Your task to perform on an android device: Go to privacy settings Image 0: 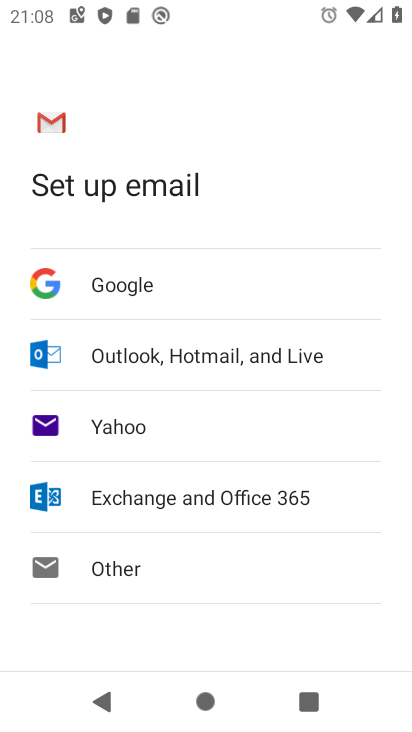
Step 0: press home button
Your task to perform on an android device: Go to privacy settings Image 1: 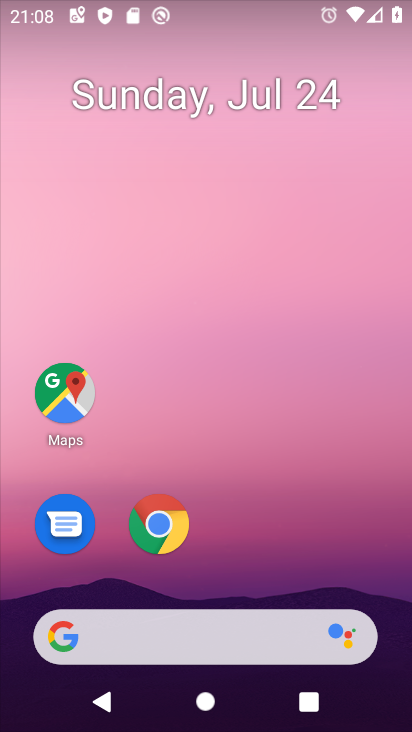
Step 1: drag from (256, 546) to (276, 27)
Your task to perform on an android device: Go to privacy settings Image 2: 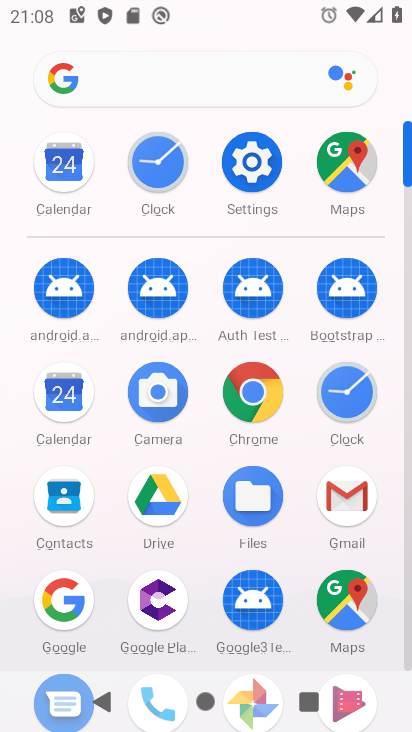
Step 2: click (253, 157)
Your task to perform on an android device: Go to privacy settings Image 3: 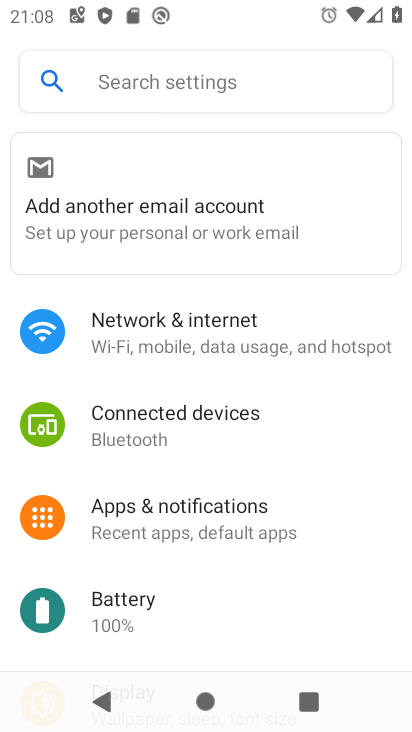
Step 3: drag from (213, 591) to (241, 45)
Your task to perform on an android device: Go to privacy settings Image 4: 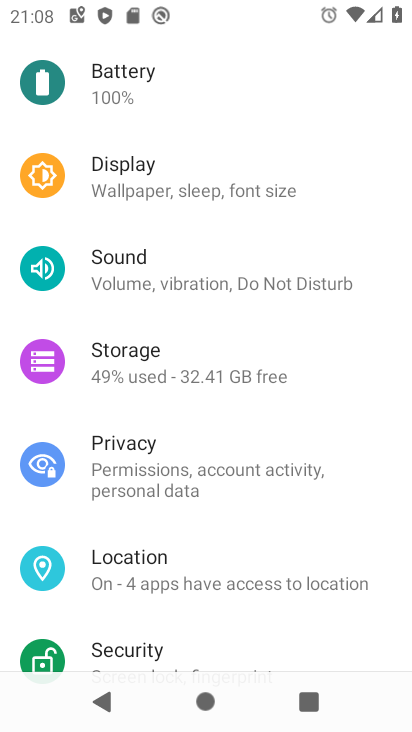
Step 4: click (221, 464)
Your task to perform on an android device: Go to privacy settings Image 5: 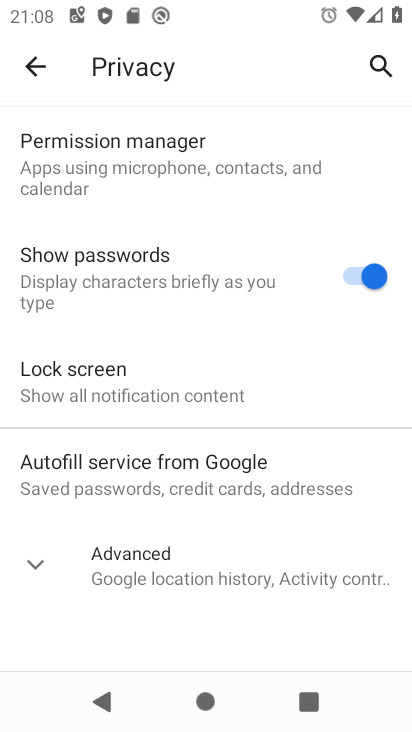
Step 5: task complete